Your task to perform on an android device: turn on javascript in the chrome app Image 0: 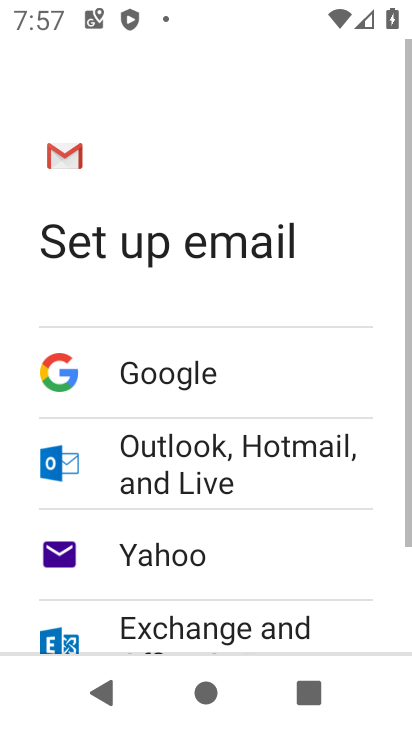
Step 0: press home button
Your task to perform on an android device: turn on javascript in the chrome app Image 1: 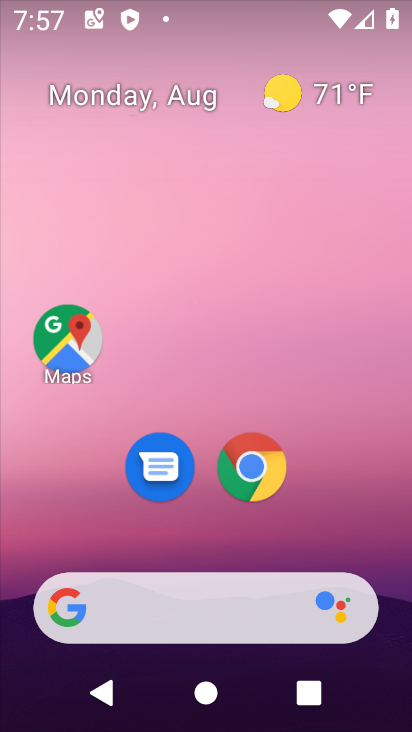
Step 1: drag from (374, 504) to (385, 138)
Your task to perform on an android device: turn on javascript in the chrome app Image 2: 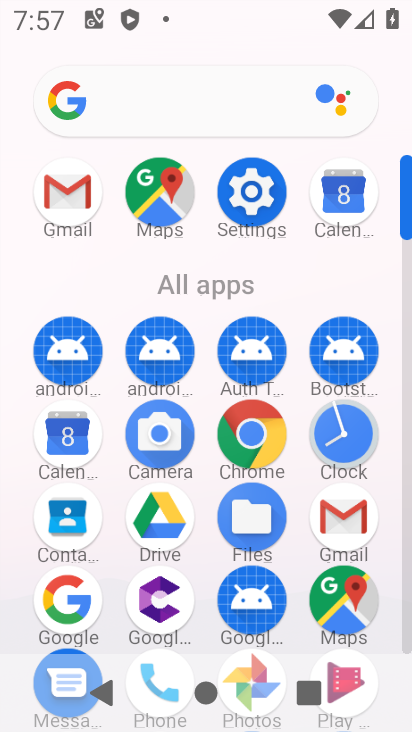
Step 2: click (256, 444)
Your task to perform on an android device: turn on javascript in the chrome app Image 3: 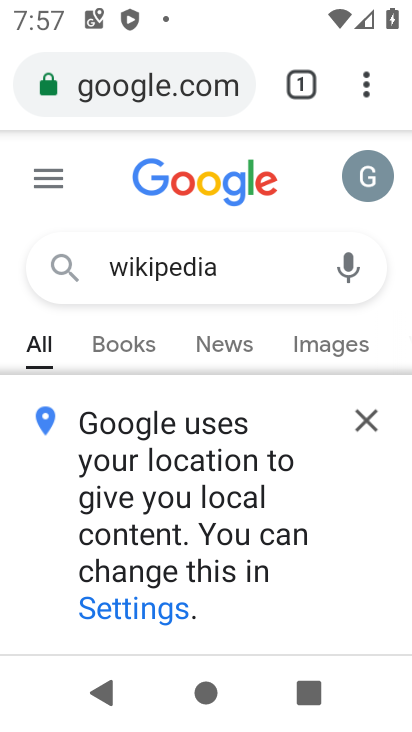
Step 3: click (367, 93)
Your task to perform on an android device: turn on javascript in the chrome app Image 4: 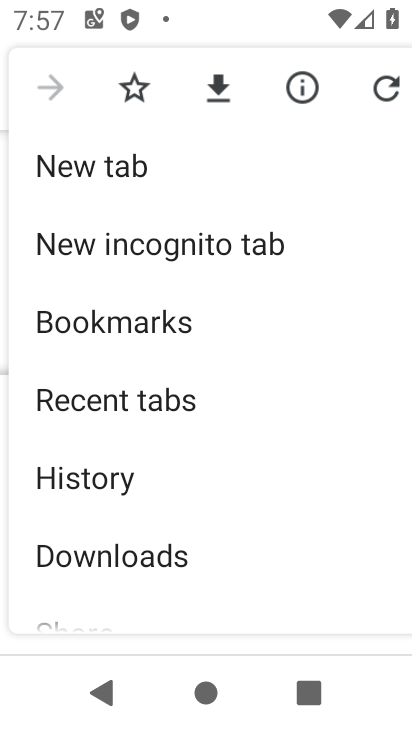
Step 4: drag from (324, 379) to (329, 270)
Your task to perform on an android device: turn on javascript in the chrome app Image 5: 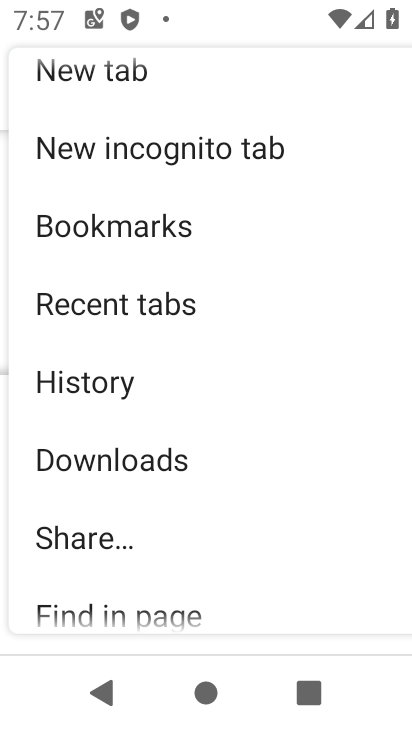
Step 5: drag from (327, 409) to (325, 247)
Your task to perform on an android device: turn on javascript in the chrome app Image 6: 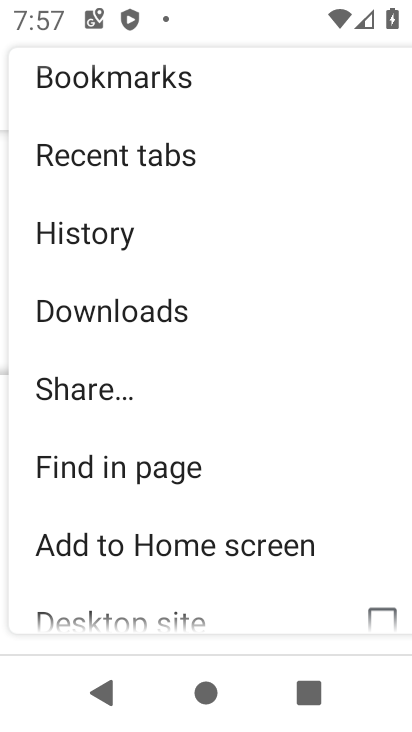
Step 6: drag from (314, 419) to (324, 248)
Your task to perform on an android device: turn on javascript in the chrome app Image 7: 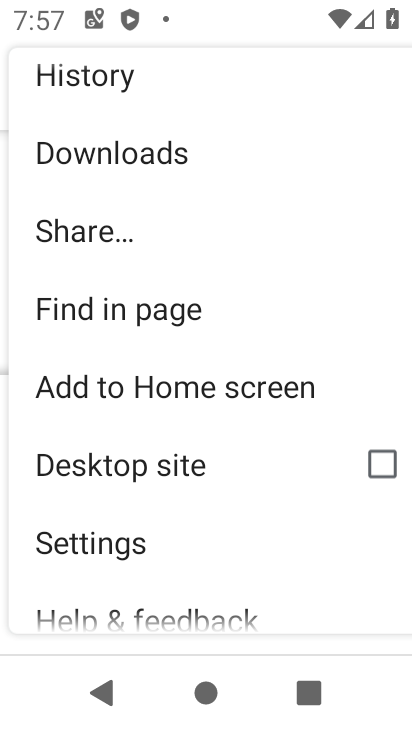
Step 7: drag from (295, 452) to (312, 254)
Your task to perform on an android device: turn on javascript in the chrome app Image 8: 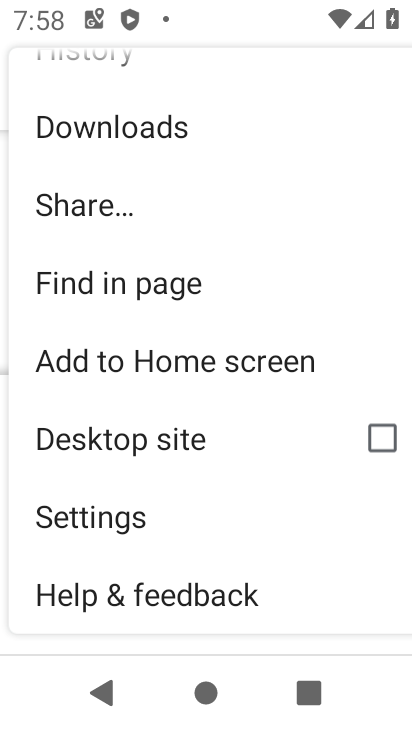
Step 8: click (156, 524)
Your task to perform on an android device: turn on javascript in the chrome app Image 9: 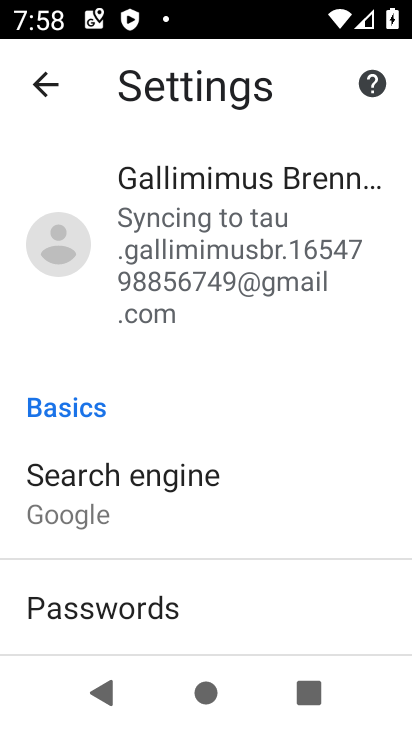
Step 9: drag from (319, 540) to (323, 399)
Your task to perform on an android device: turn on javascript in the chrome app Image 10: 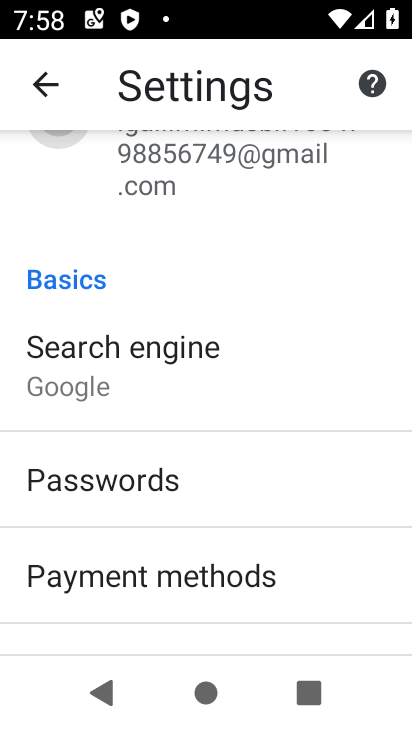
Step 10: drag from (327, 531) to (333, 442)
Your task to perform on an android device: turn on javascript in the chrome app Image 11: 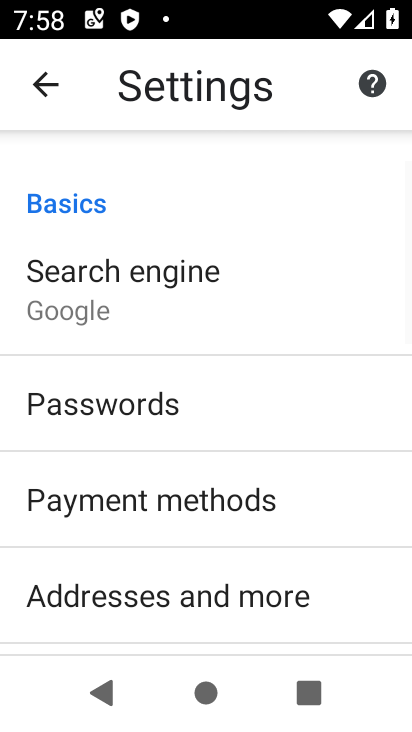
Step 11: drag from (343, 570) to (352, 436)
Your task to perform on an android device: turn on javascript in the chrome app Image 12: 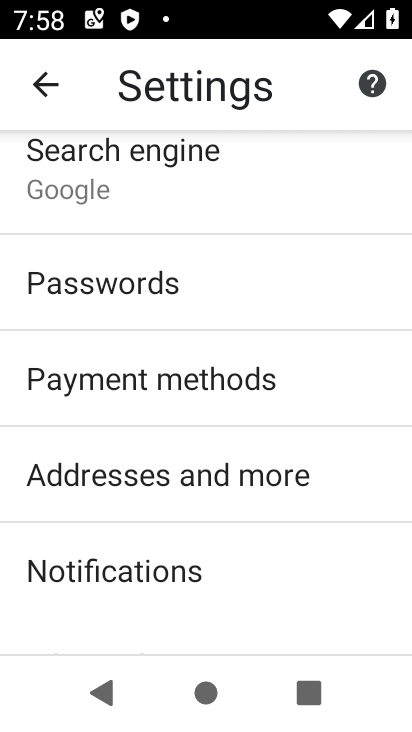
Step 12: drag from (349, 562) to (347, 459)
Your task to perform on an android device: turn on javascript in the chrome app Image 13: 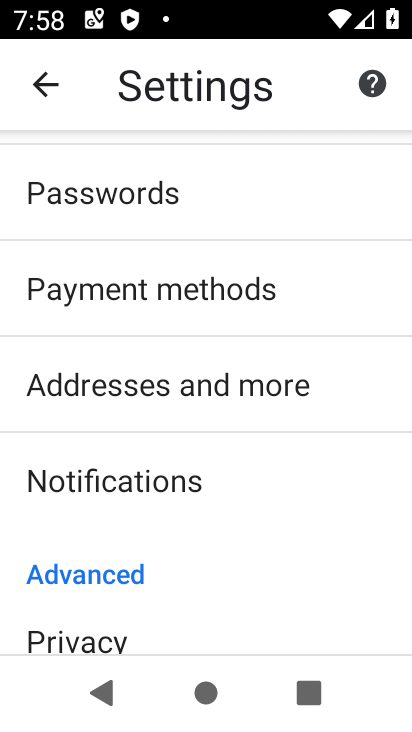
Step 13: drag from (340, 570) to (337, 448)
Your task to perform on an android device: turn on javascript in the chrome app Image 14: 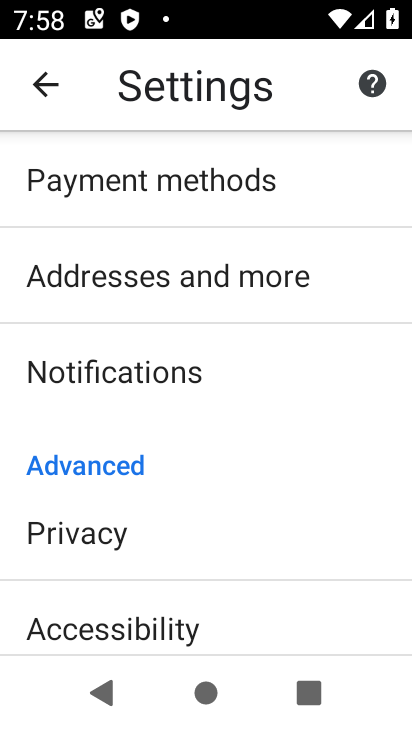
Step 14: drag from (337, 562) to (335, 455)
Your task to perform on an android device: turn on javascript in the chrome app Image 15: 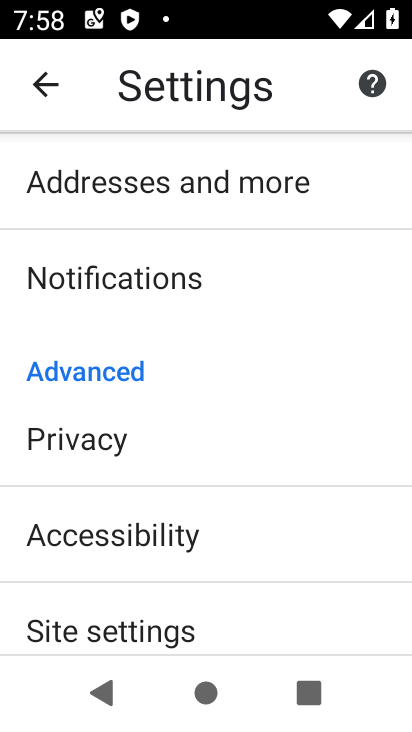
Step 15: drag from (314, 548) to (313, 422)
Your task to perform on an android device: turn on javascript in the chrome app Image 16: 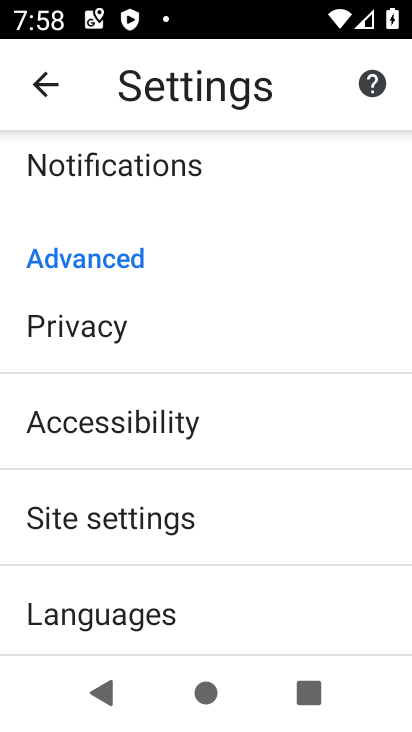
Step 16: click (310, 525)
Your task to perform on an android device: turn on javascript in the chrome app Image 17: 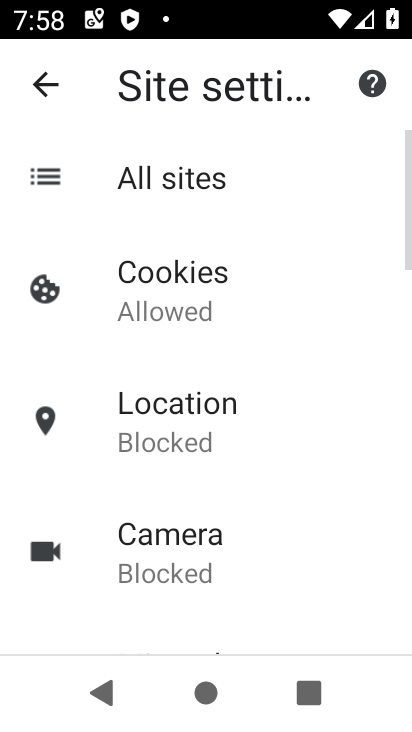
Step 17: drag from (314, 515) to (306, 410)
Your task to perform on an android device: turn on javascript in the chrome app Image 18: 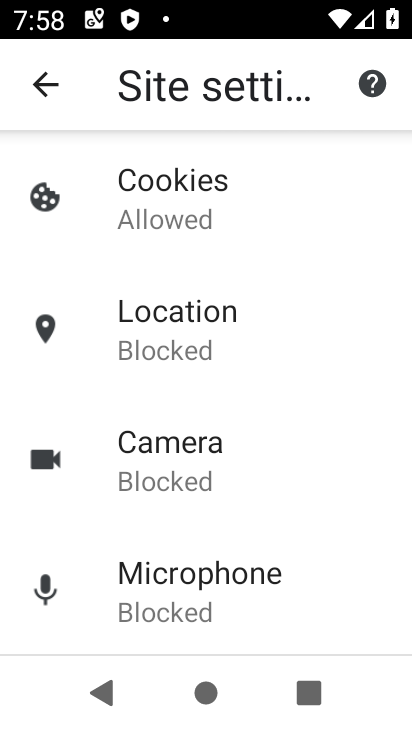
Step 18: drag from (309, 538) to (311, 391)
Your task to perform on an android device: turn on javascript in the chrome app Image 19: 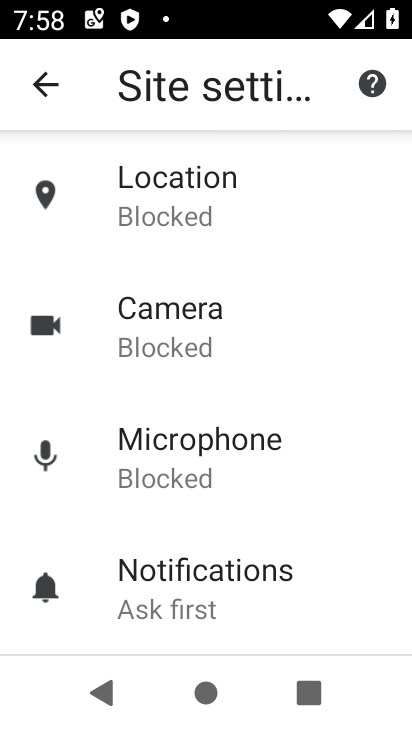
Step 19: drag from (326, 557) to (332, 401)
Your task to perform on an android device: turn on javascript in the chrome app Image 20: 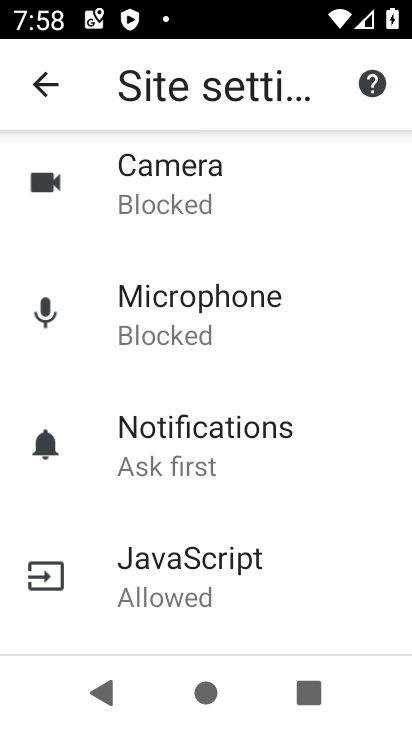
Step 20: click (296, 566)
Your task to perform on an android device: turn on javascript in the chrome app Image 21: 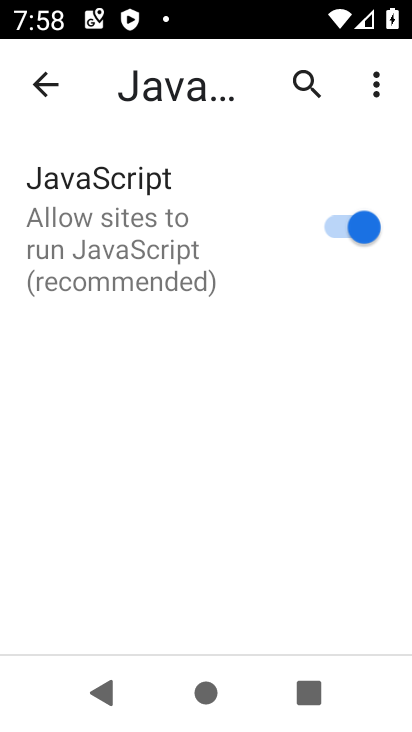
Step 21: task complete